Your task to perform on an android device: Go to Google Image 0: 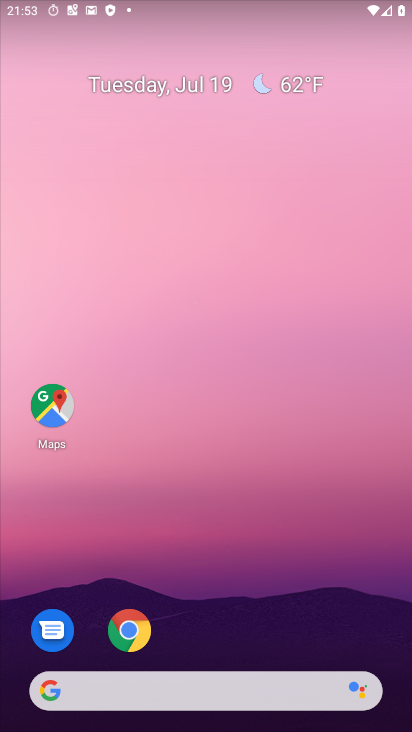
Step 0: click (244, 204)
Your task to perform on an android device: Go to Google Image 1: 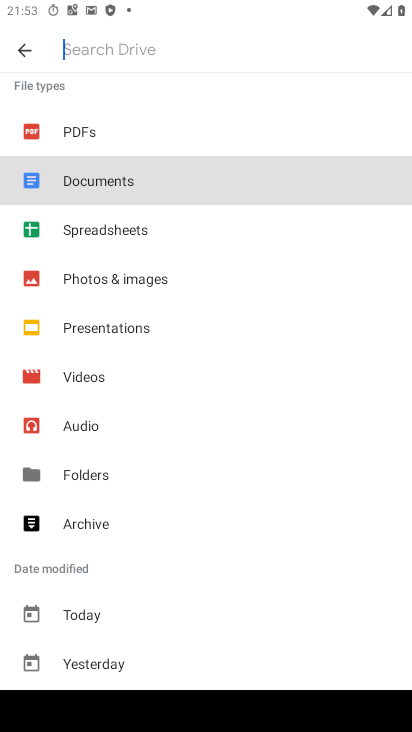
Step 1: drag from (52, 649) to (210, 116)
Your task to perform on an android device: Go to Google Image 2: 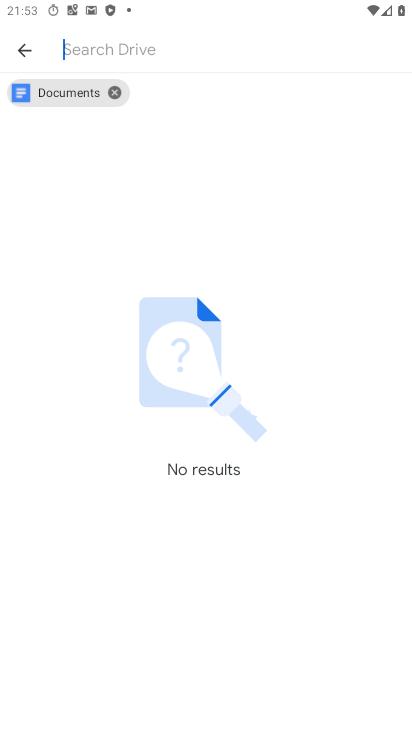
Step 2: press home button
Your task to perform on an android device: Go to Google Image 3: 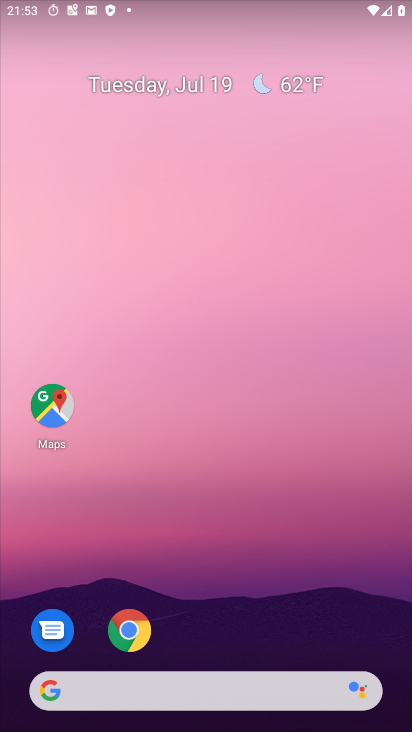
Step 3: click (97, 676)
Your task to perform on an android device: Go to Google Image 4: 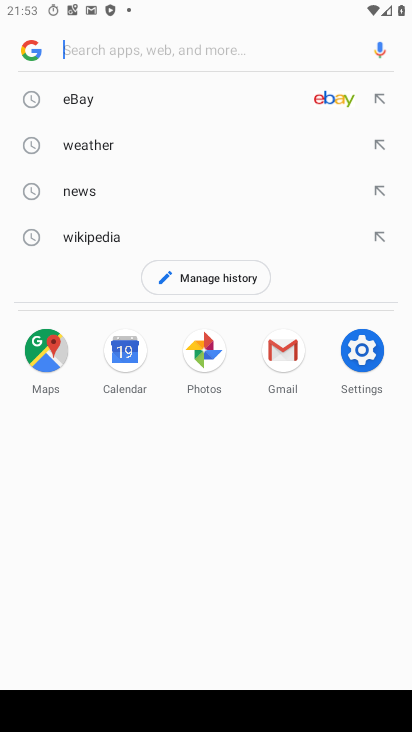
Step 4: task complete